Your task to perform on an android device: change alarm snooze length Image 0: 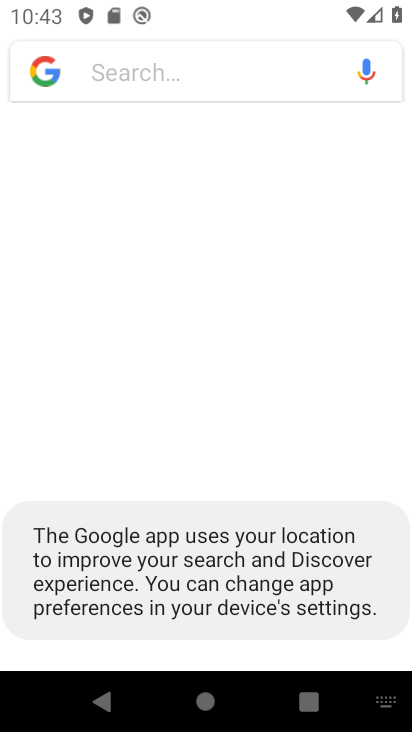
Step 0: press home button
Your task to perform on an android device: change alarm snooze length Image 1: 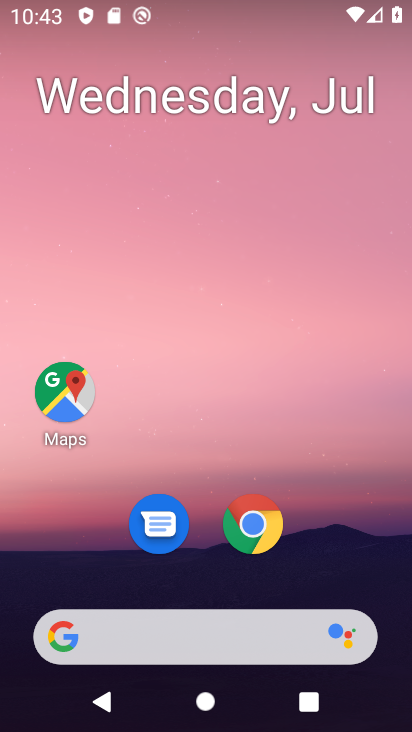
Step 1: drag from (181, 623) to (293, 69)
Your task to perform on an android device: change alarm snooze length Image 2: 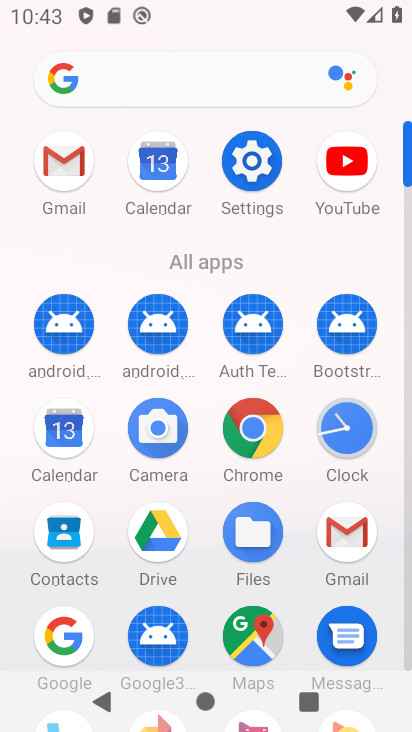
Step 2: click (345, 439)
Your task to perform on an android device: change alarm snooze length Image 3: 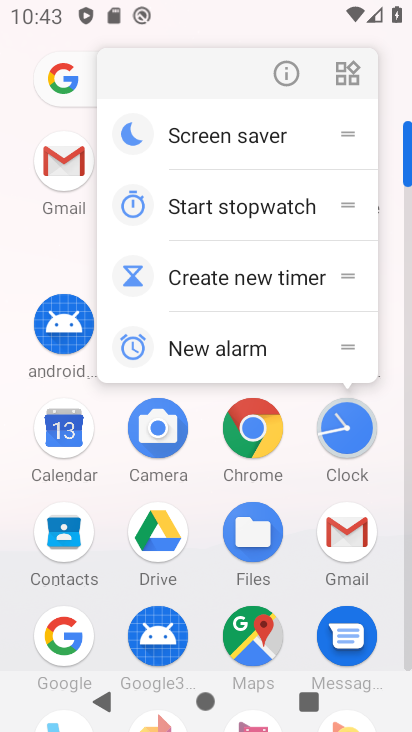
Step 3: click (349, 442)
Your task to perform on an android device: change alarm snooze length Image 4: 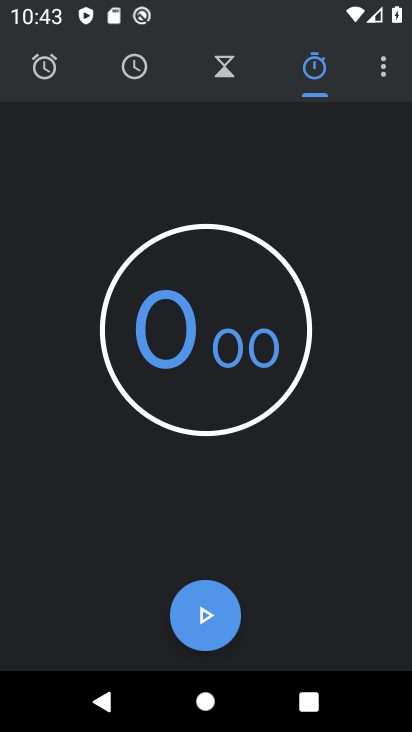
Step 4: click (384, 67)
Your task to perform on an android device: change alarm snooze length Image 5: 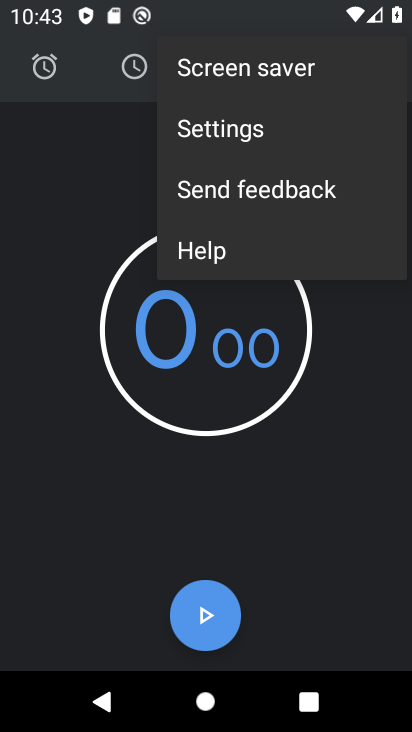
Step 5: click (245, 131)
Your task to perform on an android device: change alarm snooze length Image 6: 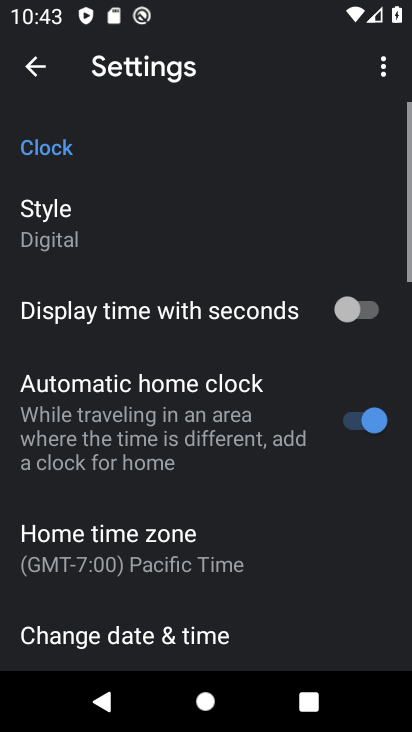
Step 6: drag from (223, 565) to (315, 117)
Your task to perform on an android device: change alarm snooze length Image 7: 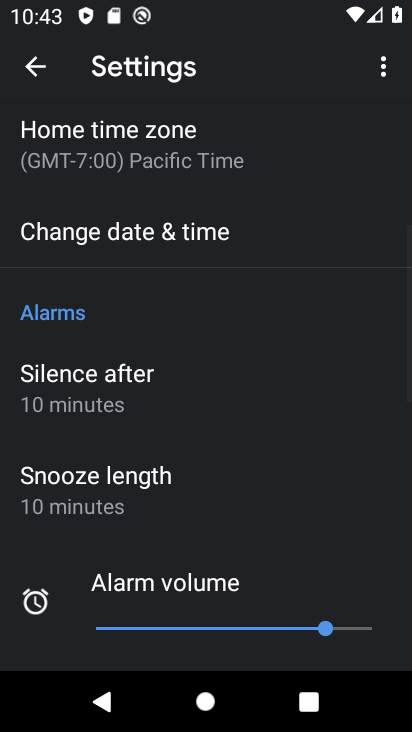
Step 7: click (110, 506)
Your task to perform on an android device: change alarm snooze length Image 8: 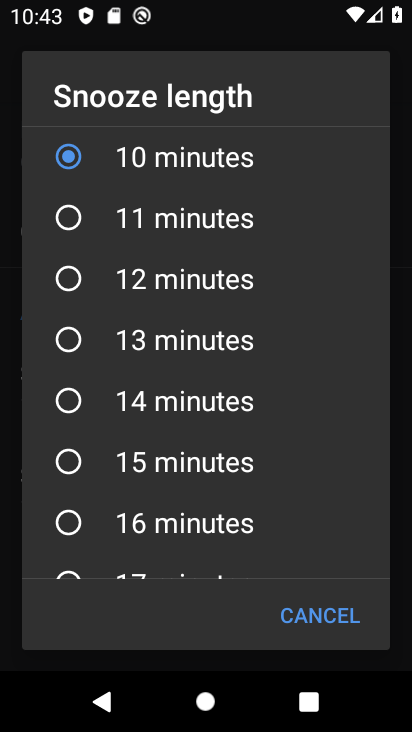
Step 8: click (67, 461)
Your task to perform on an android device: change alarm snooze length Image 9: 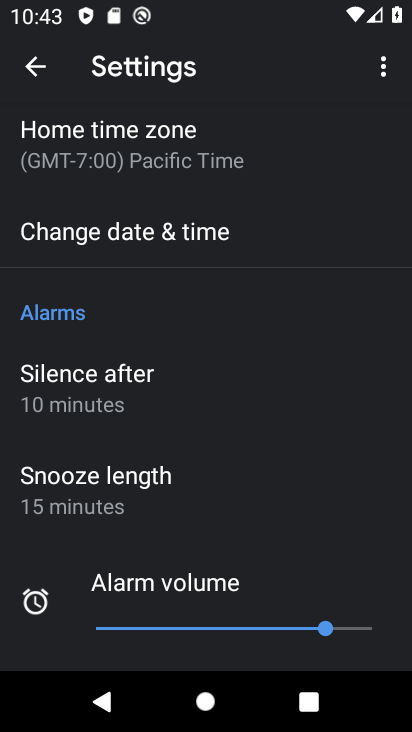
Step 9: task complete